Your task to perform on an android device: open device folders in google photos Image 0: 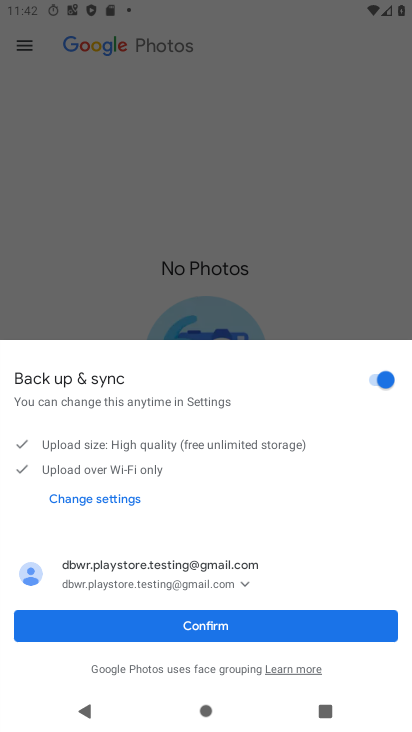
Step 0: press home button
Your task to perform on an android device: open device folders in google photos Image 1: 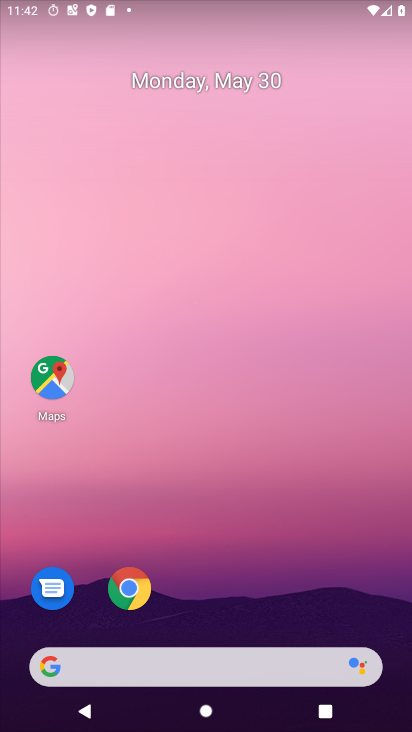
Step 1: drag from (219, 626) to (269, 65)
Your task to perform on an android device: open device folders in google photos Image 2: 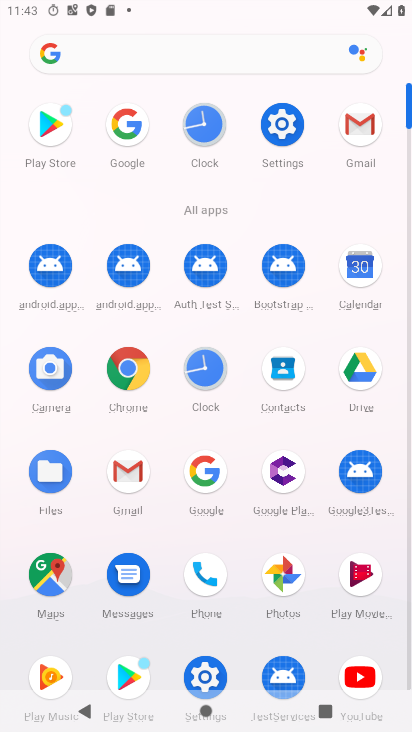
Step 2: click (284, 567)
Your task to perform on an android device: open device folders in google photos Image 3: 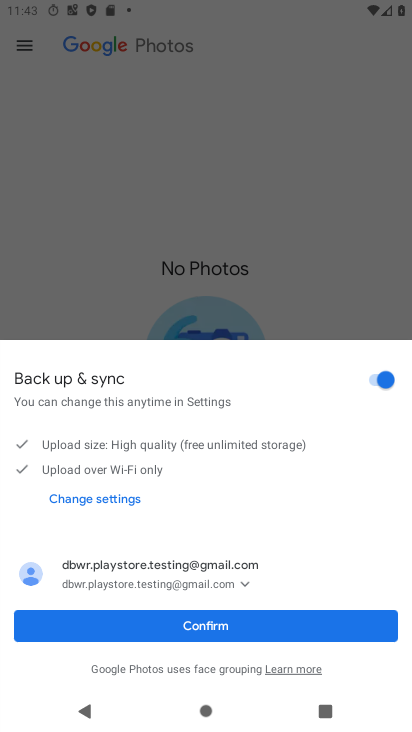
Step 3: click (215, 627)
Your task to perform on an android device: open device folders in google photos Image 4: 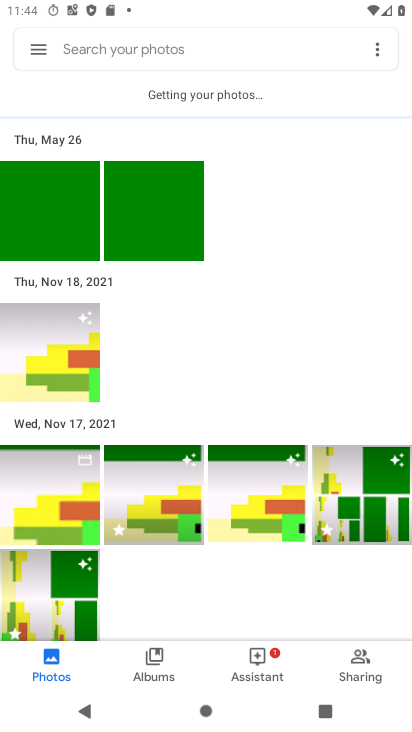
Step 4: click (118, 44)
Your task to perform on an android device: open device folders in google photos Image 5: 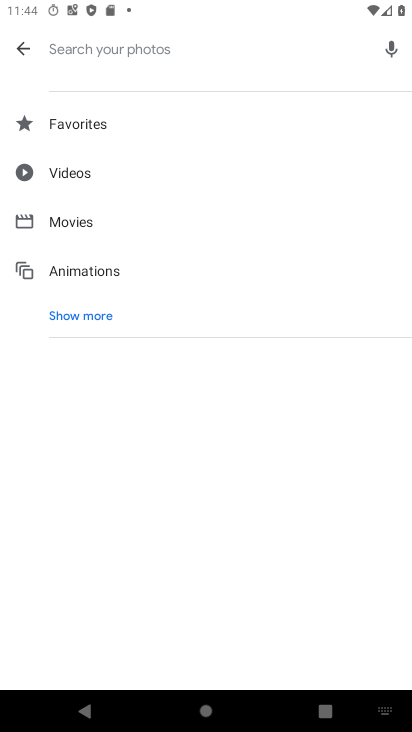
Step 5: click (22, 45)
Your task to perform on an android device: open device folders in google photos Image 6: 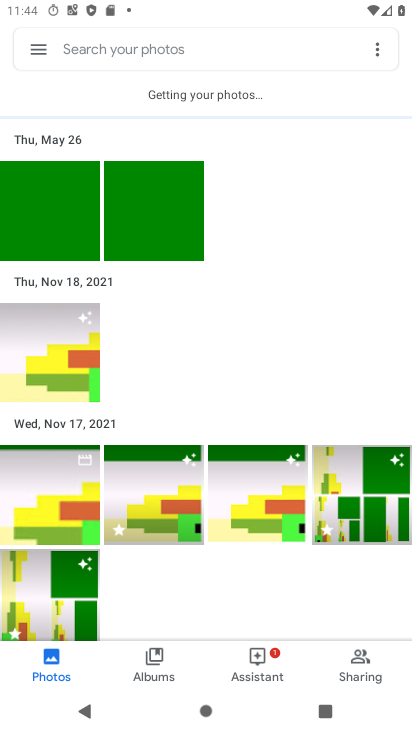
Step 6: click (35, 43)
Your task to perform on an android device: open device folders in google photos Image 7: 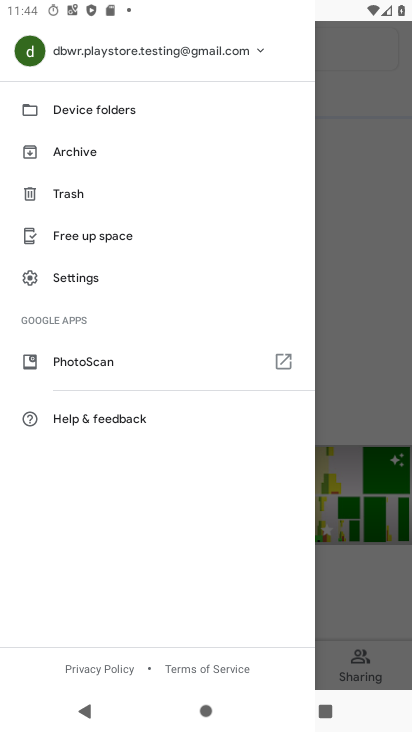
Step 7: click (91, 114)
Your task to perform on an android device: open device folders in google photos Image 8: 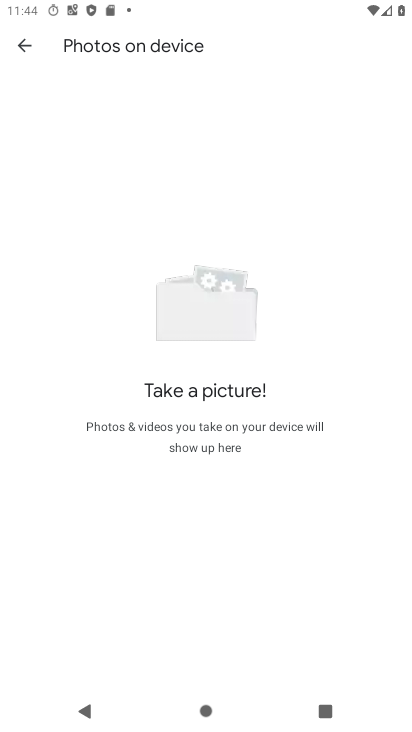
Step 8: task complete